Your task to perform on an android device: toggle show notifications on the lock screen Image 0: 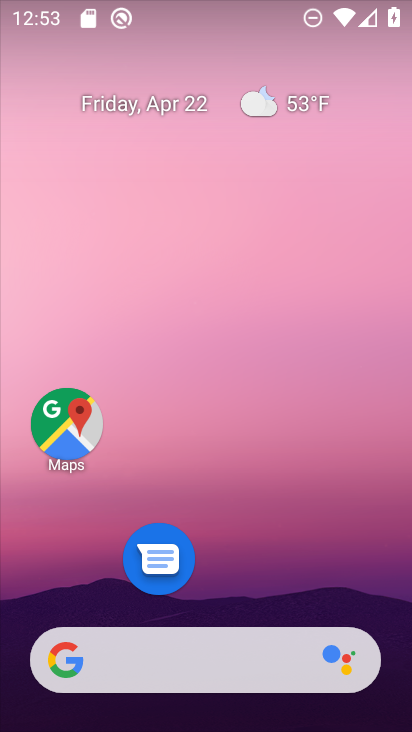
Step 0: drag from (238, 677) to (236, 279)
Your task to perform on an android device: toggle show notifications on the lock screen Image 1: 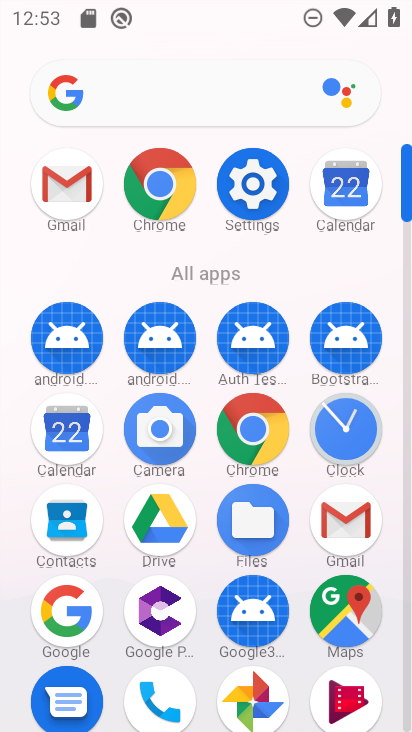
Step 1: click (252, 168)
Your task to perform on an android device: toggle show notifications on the lock screen Image 2: 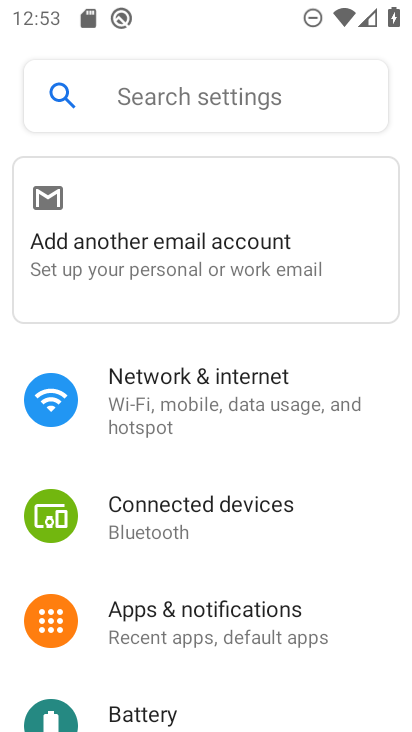
Step 2: click (197, 627)
Your task to perform on an android device: toggle show notifications on the lock screen Image 3: 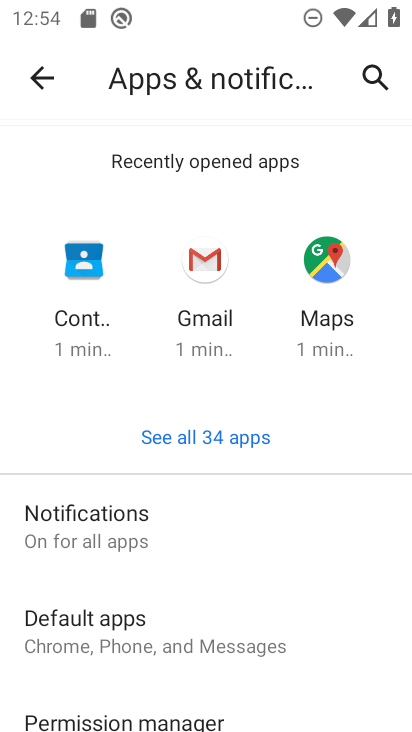
Step 3: click (104, 535)
Your task to perform on an android device: toggle show notifications on the lock screen Image 4: 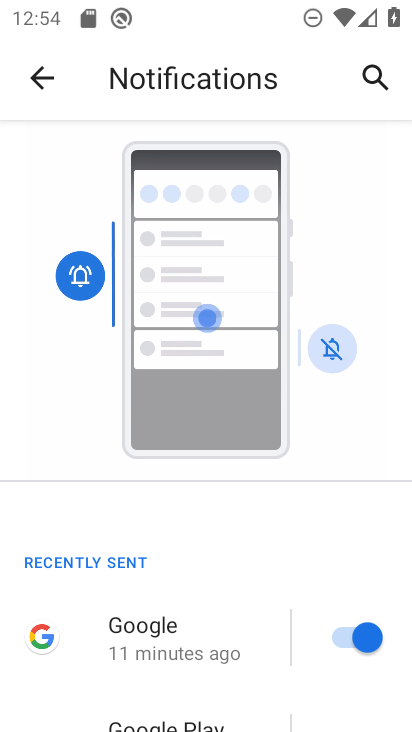
Step 4: drag from (177, 690) to (177, 540)
Your task to perform on an android device: toggle show notifications on the lock screen Image 5: 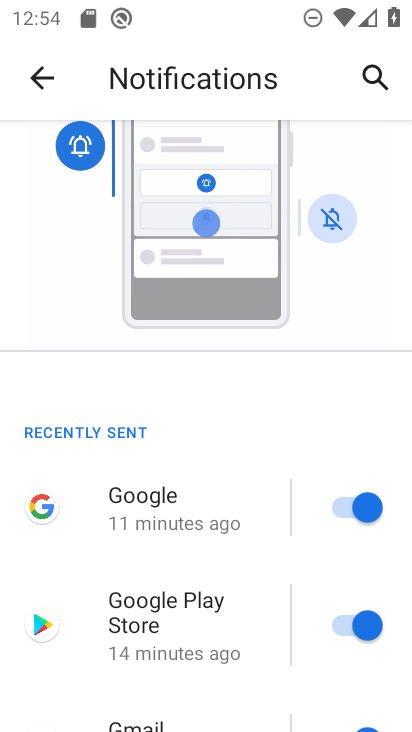
Step 5: drag from (196, 716) to (217, 461)
Your task to perform on an android device: toggle show notifications on the lock screen Image 6: 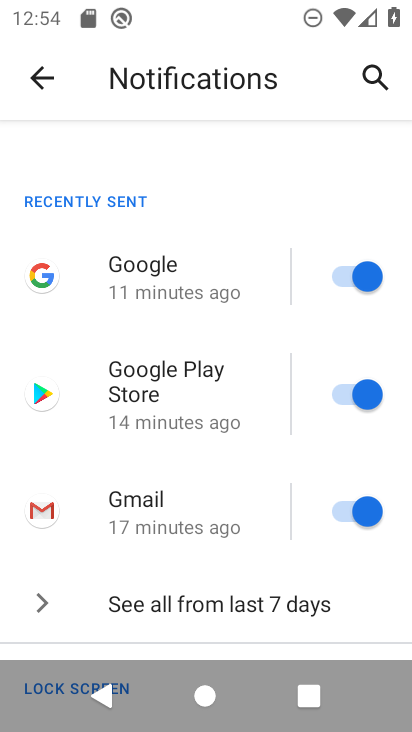
Step 6: drag from (238, 643) to (236, 182)
Your task to perform on an android device: toggle show notifications on the lock screen Image 7: 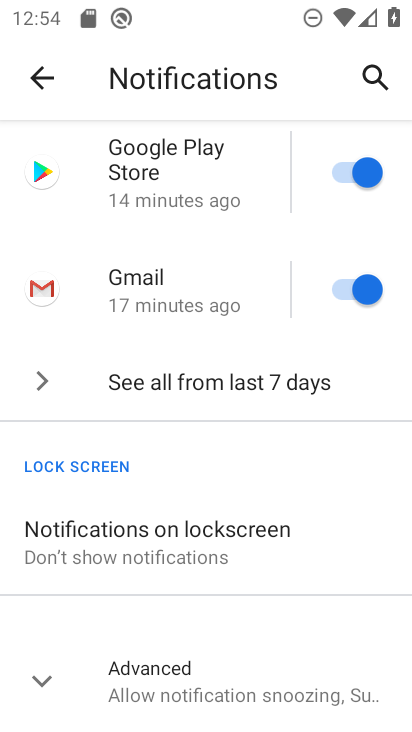
Step 7: click (166, 537)
Your task to perform on an android device: toggle show notifications on the lock screen Image 8: 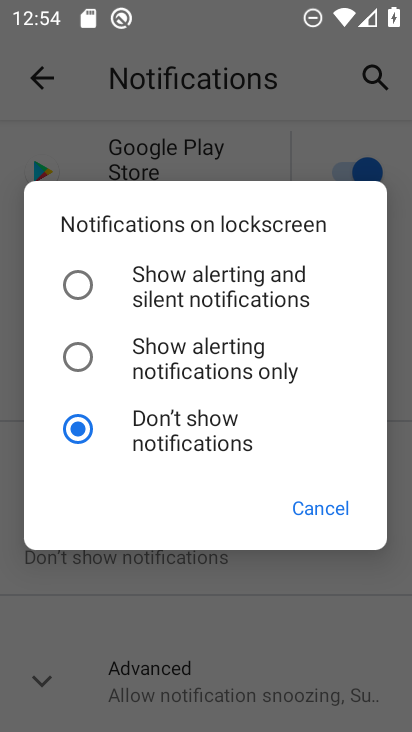
Step 8: click (74, 272)
Your task to perform on an android device: toggle show notifications on the lock screen Image 9: 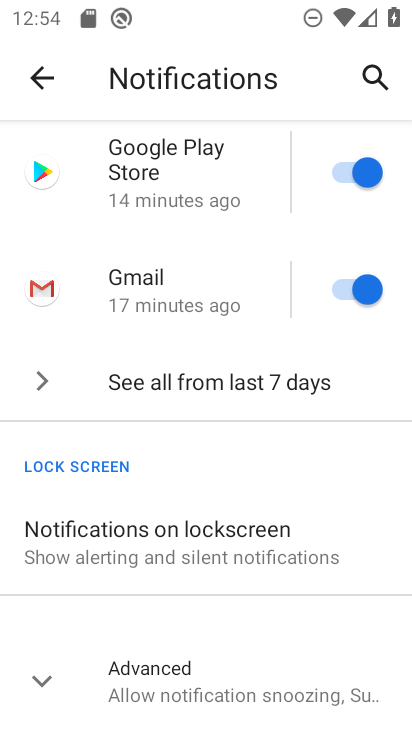
Step 9: task complete